Your task to perform on an android device: add a label to a message in the gmail app Image 0: 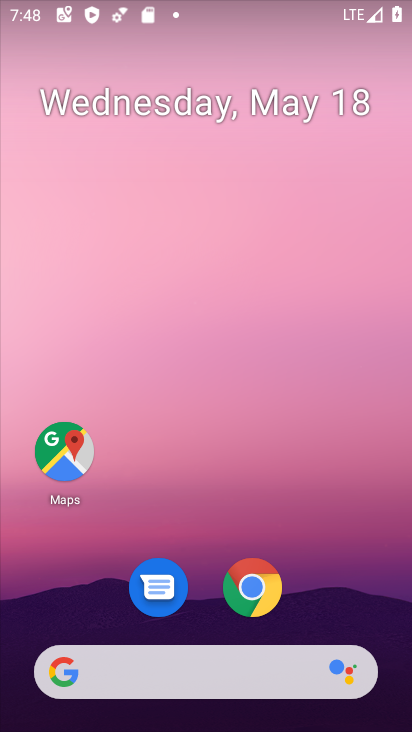
Step 0: drag from (208, 622) to (262, 145)
Your task to perform on an android device: add a label to a message in the gmail app Image 1: 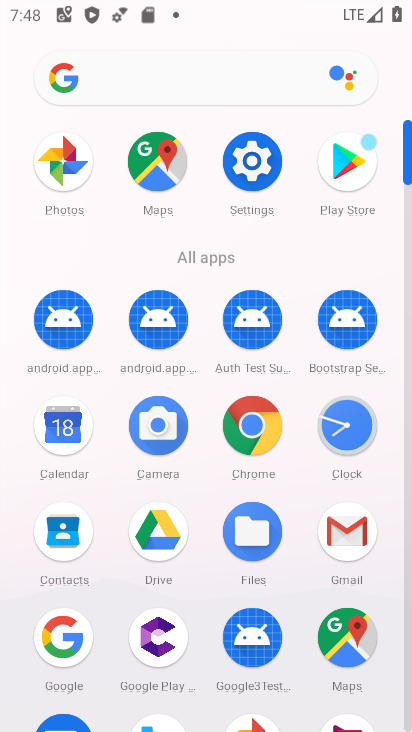
Step 1: click (358, 536)
Your task to perform on an android device: add a label to a message in the gmail app Image 2: 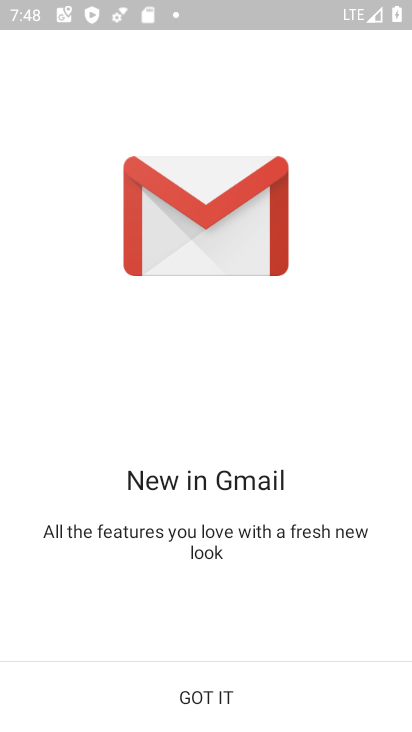
Step 2: click (199, 709)
Your task to perform on an android device: add a label to a message in the gmail app Image 3: 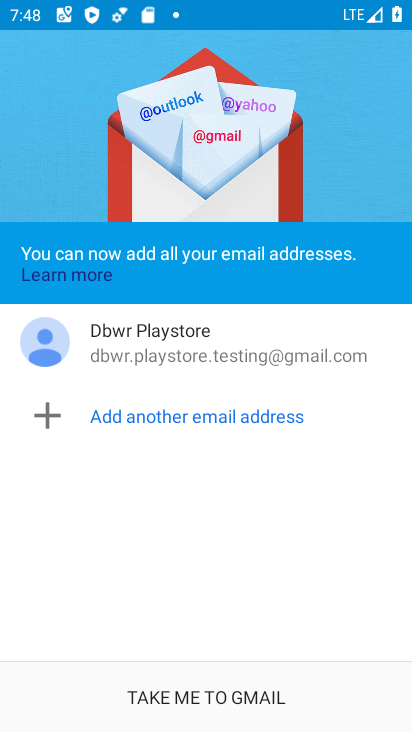
Step 3: click (199, 709)
Your task to perform on an android device: add a label to a message in the gmail app Image 4: 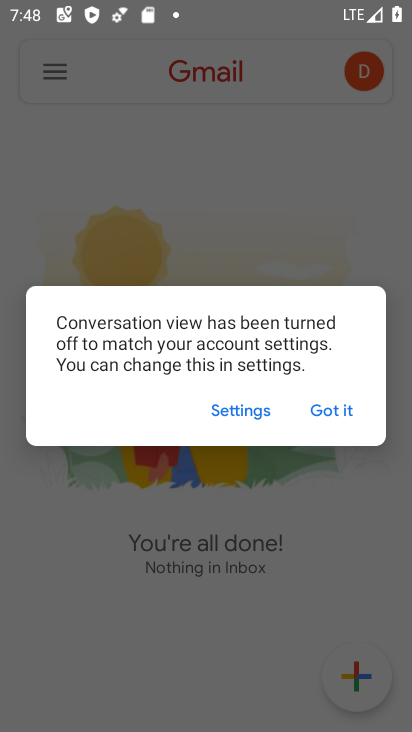
Step 4: click (319, 422)
Your task to perform on an android device: add a label to a message in the gmail app Image 5: 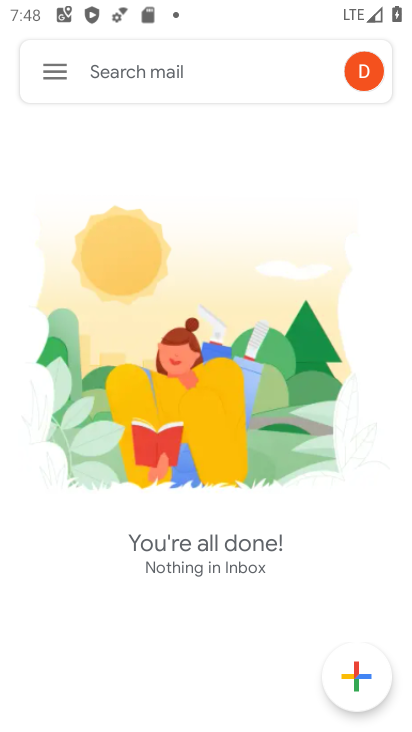
Step 5: task complete